Your task to perform on an android device: clear history in the chrome app Image 0: 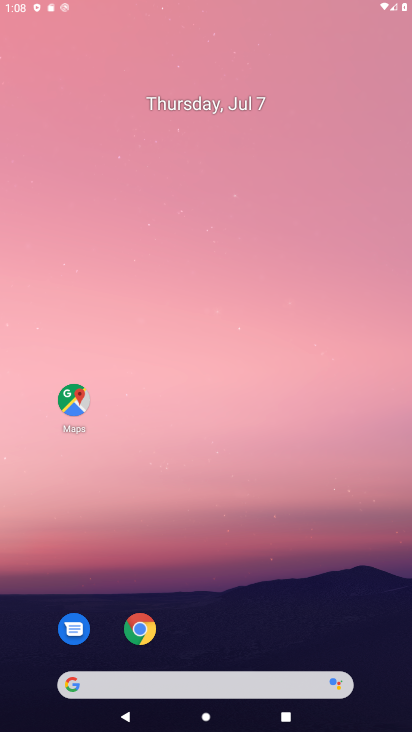
Step 0: press home button
Your task to perform on an android device: clear history in the chrome app Image 1: 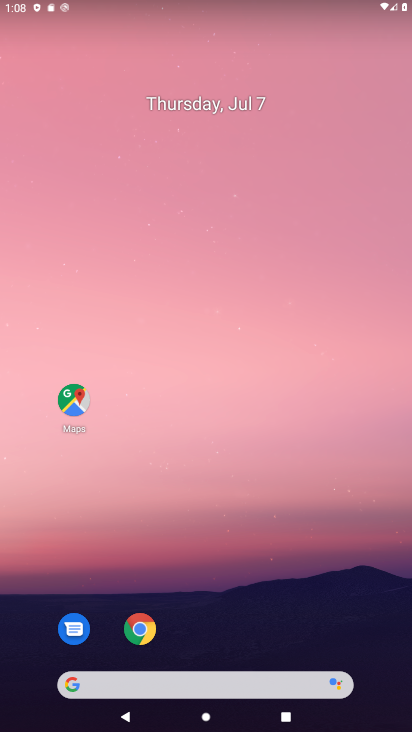
Step 1: drag from (236, 552) to (236, 33)
Your task to perform on an android device: clear history in the chrome app Image 2: 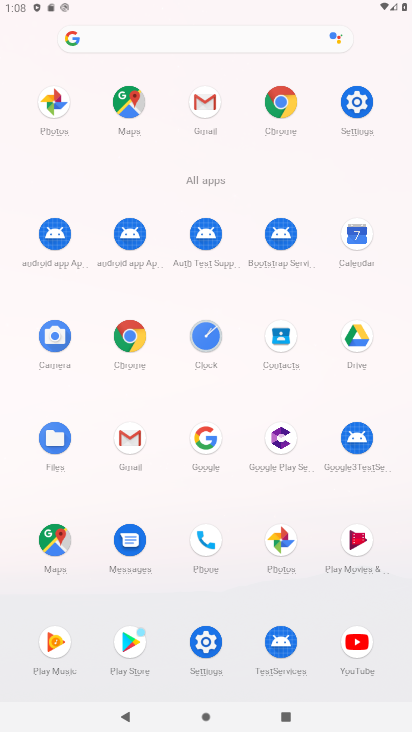
Step 2: click (122, 339)
Your task to perform on an android device: clear history in the chrome app Image 3: 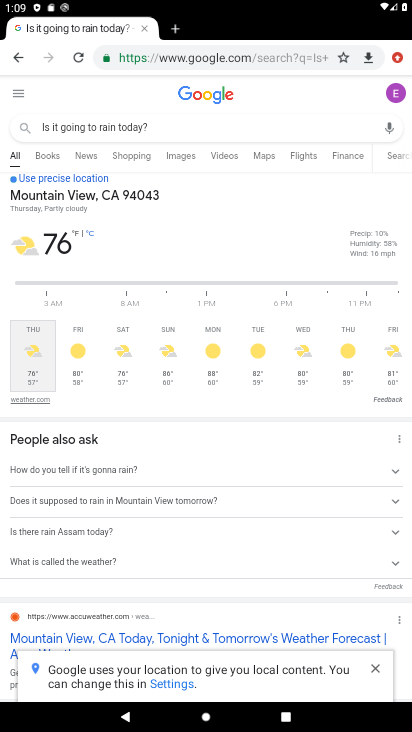
Step 3: drag from (397, 56) to (272, 213)
Your task to perform on an android device: clear history in the chrome app Image 4: 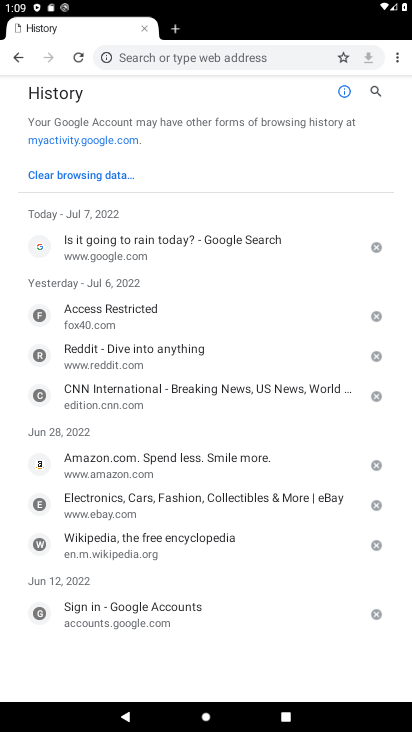
Step 4: click (377, 245)
Your task to perform on an android device: clear history in the chrome app Image 5: 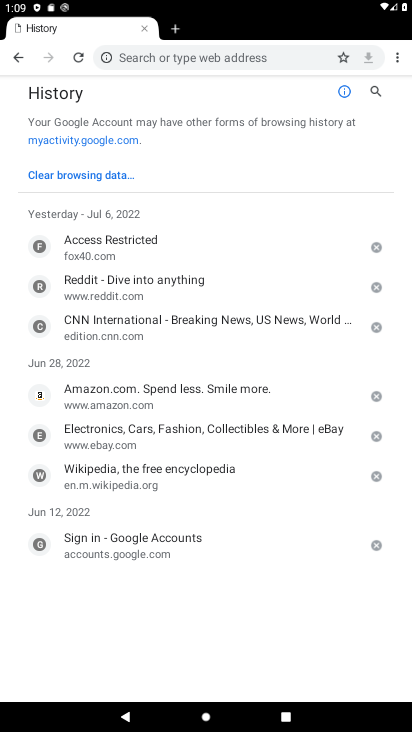
Step 5: click (377, 245)
Your task to perform on an android device: clear history in the chrome app Image 6: 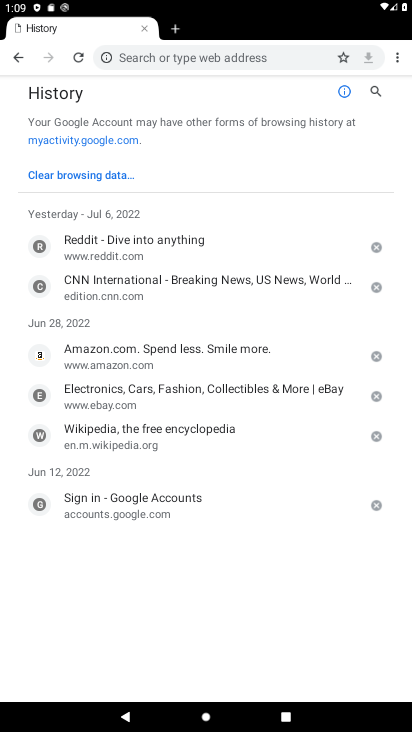
Step 6: click (377, 245)
Your task to perform on an android device: clear history in the chrome app Image 7: 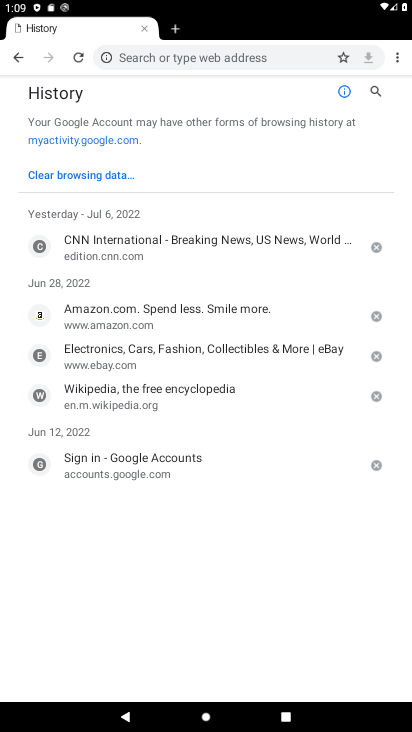
Step 7: click (377, 245)
Your task to perform on an android device: clear history in the chrome app Image 8: 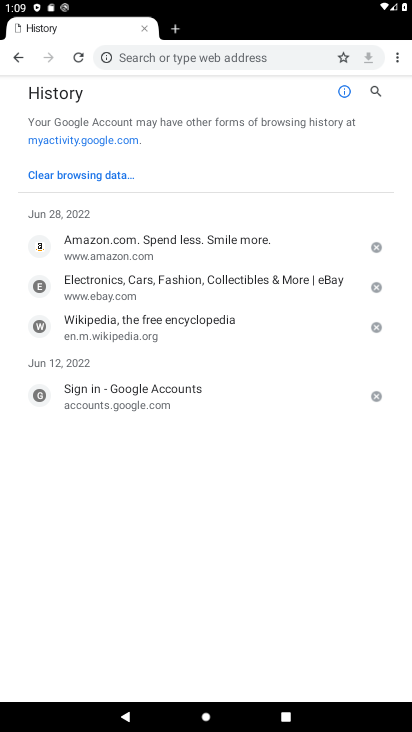
Step 8: click (377, 249)
Your task to perform on an android device: clear history in the chrome app Image 9: 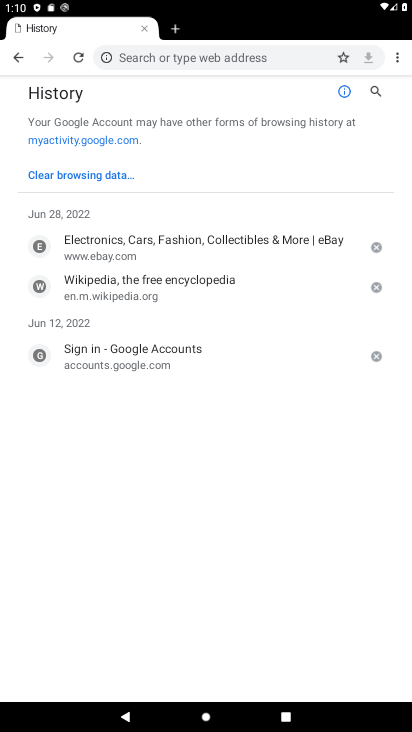
Step 9: click (373, 244)
Your task to perform on an android device: clear history in the chrome app Image 10: 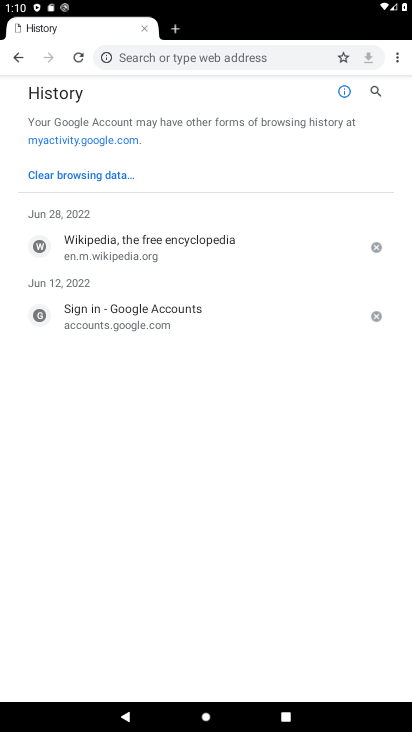
Step 10: click (375, 247)
Your task to perform on an android device: clear history in the chrome app Image 11: 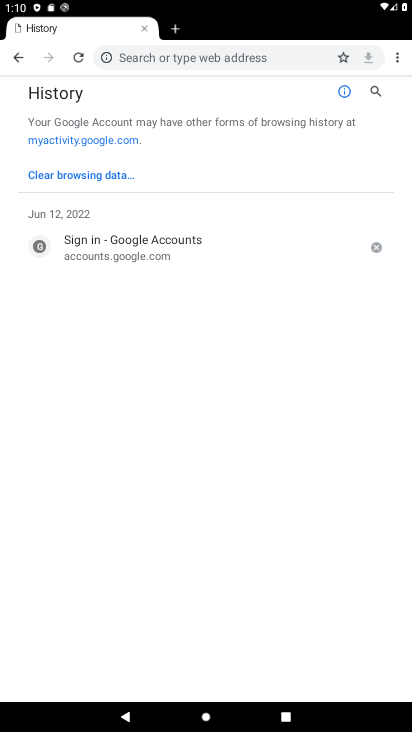
Step 11: click (374, 247)
Your task to perform on an android device: clear history in the chrome app Image 12: 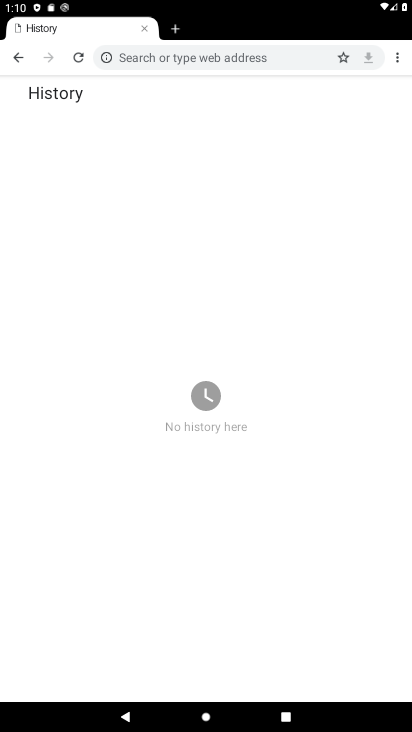
Step 12: task complete